Your task to perform on an android device: turn notification dots off Image 0: 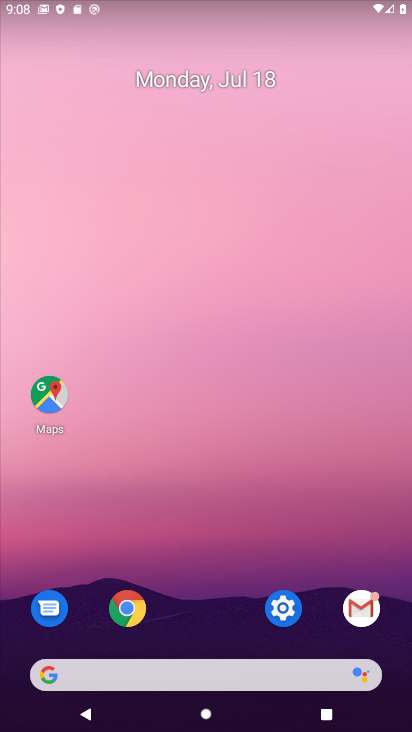
Step 0: click (290, 606)
Your task to perform on an android device: turn notification dots off Image 1: 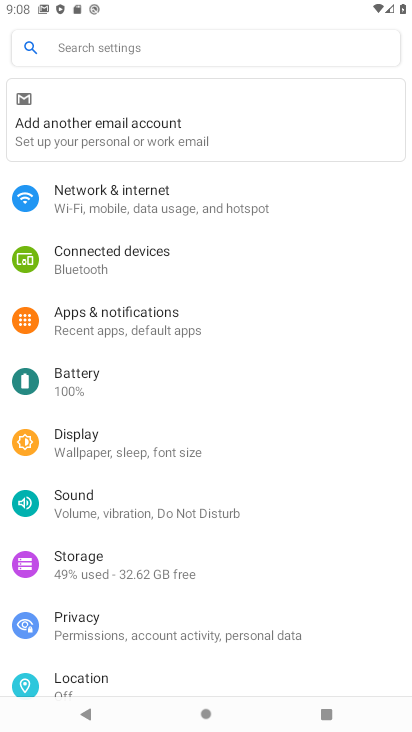
Step 1: click (121, 53)
Your task to perform on an android device: turn notification dots off Image 2: 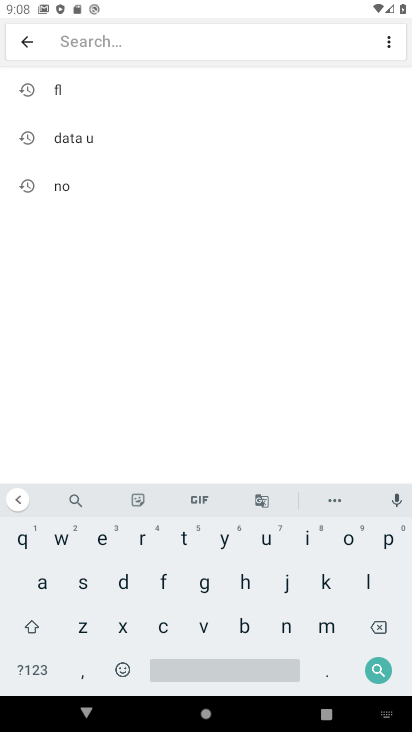
Step 2: click (80, 183)
Your task to perform on an android device: turn notification dots off Image 3: 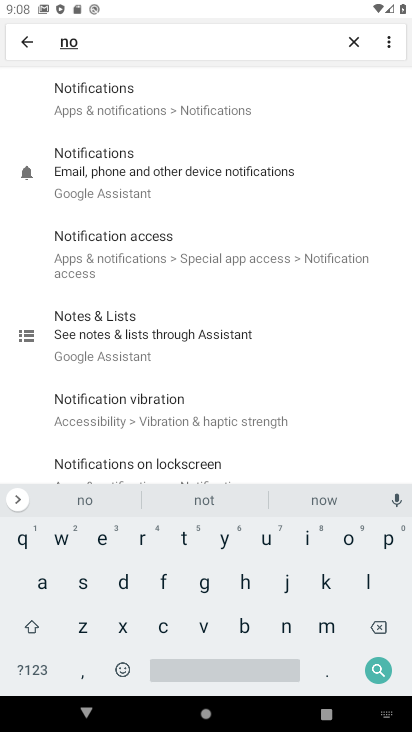
Step 3: click (137, 106)
Your task to perform on an android device: turn notification dots off Image 4: 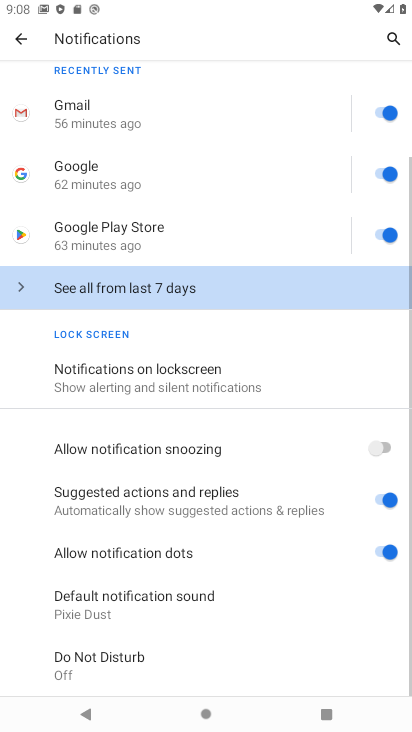
Step 4: click (366, 543)
Your task to perform on an android device: turn notification dots off Image 5: 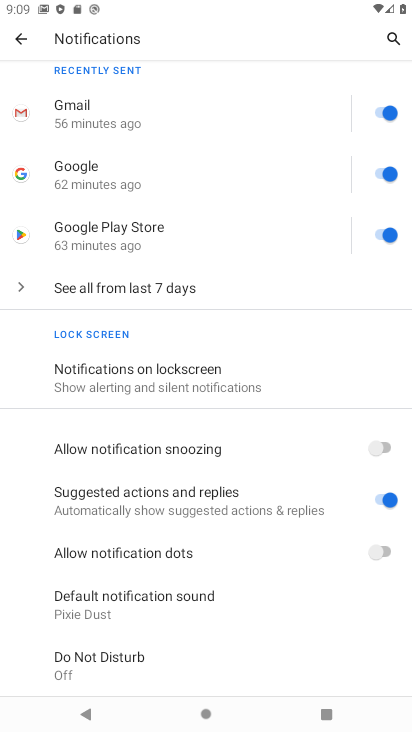
Step 5: task complete